Your task to perform on an android device: toggle airplane mode Image 0: 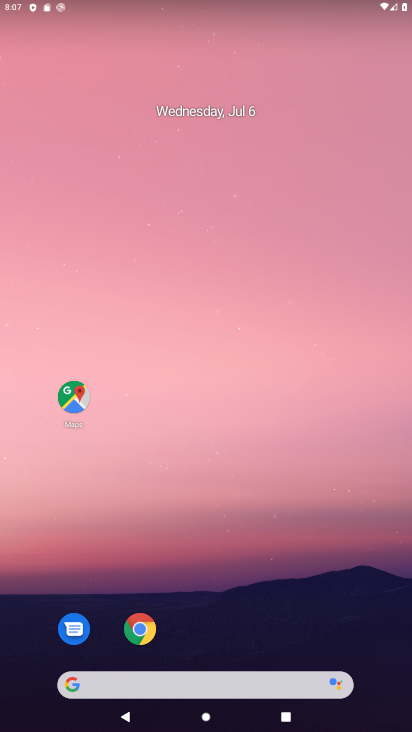
Step 0: drag from (316, 22) to (353, 583)
Your task to perform on an android device: toggle airplane mode Image 1: 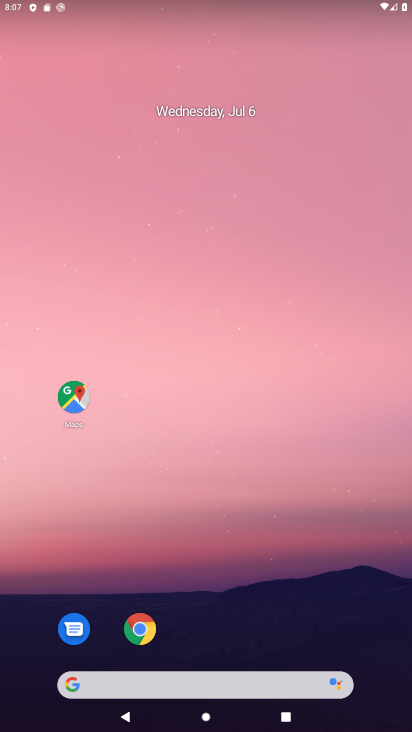
Step 1: drag from (276, 10) to (236, 572)
Your task to perform on an android device: toggle airplane mode Image 2: 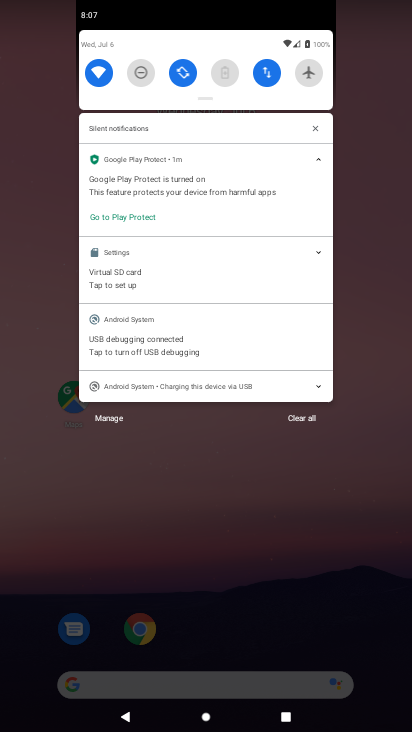
Step 2: click (308, 77)
Your task to perform on an android device: toggle airplane mode Image 3: 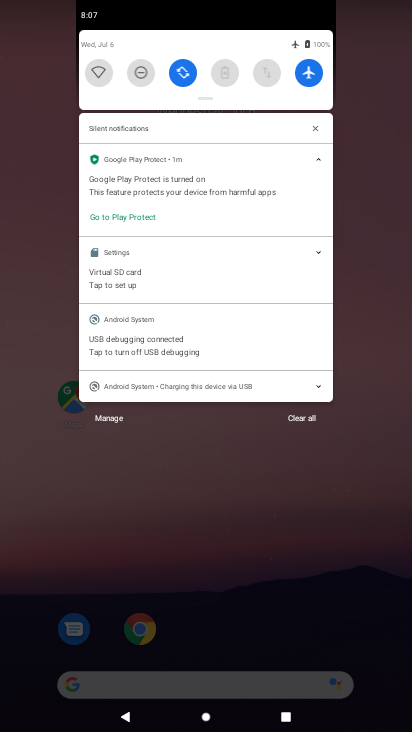
Step 3: task complete